Your task to perform on an android device: Show me the alarms in the clock app Image 0: 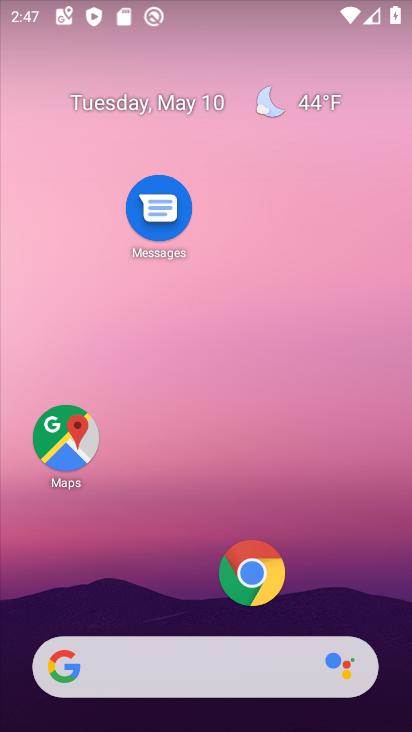
Step 0: drag from (204, 616) to (262, 230)
Your task to perform on an android device: Show me the alarms in the clock app Image 1: 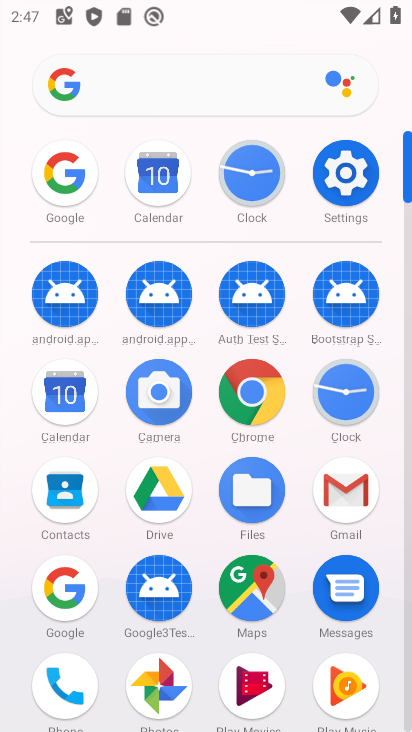
Step 1: click (241, 191)
Your task to perform on an android device: Show me the alarms in the clock app Image 2: 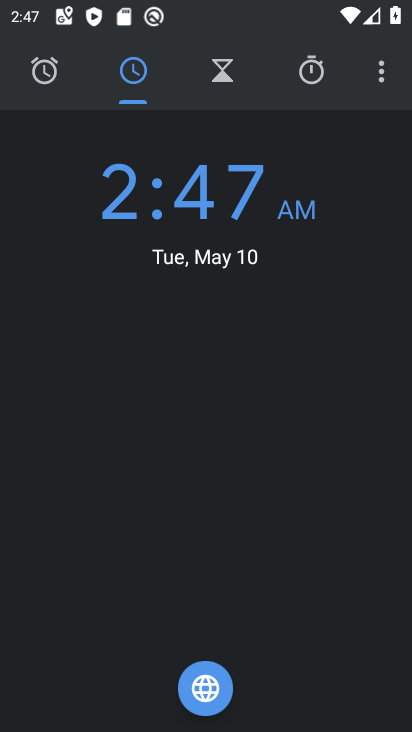
Step 2: click (52, 71)
Your task to perform on an android device: Show me the alarms in the clock app Image 3: 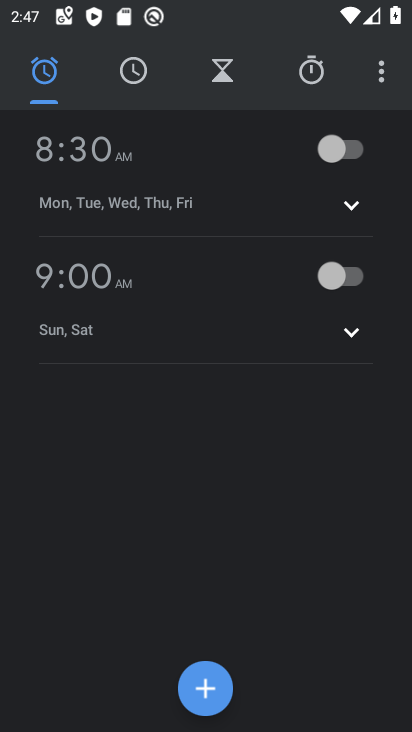
Step 3: task complete